Your task to perform on an android device: turn pop-ups on in chrome Image 0: 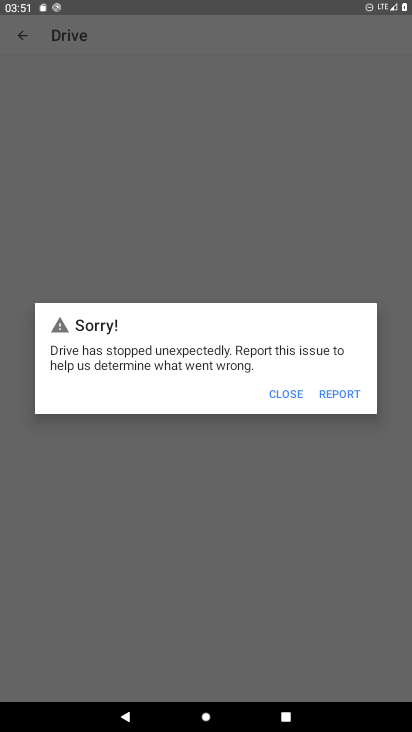
Step 0: press home button
Your task to perform on an android device: turn pop-ups on in chrome Image 1: 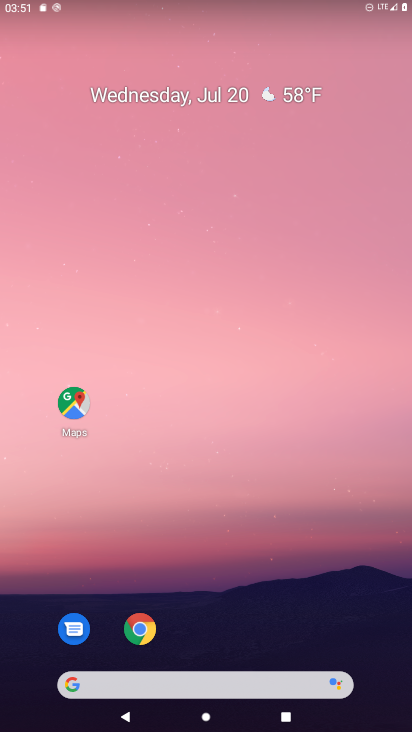
Step 1: drag from (294, 591) to (291, 118)
Your task to perform on an android device: turn pop-ups on in chrome Image 2: 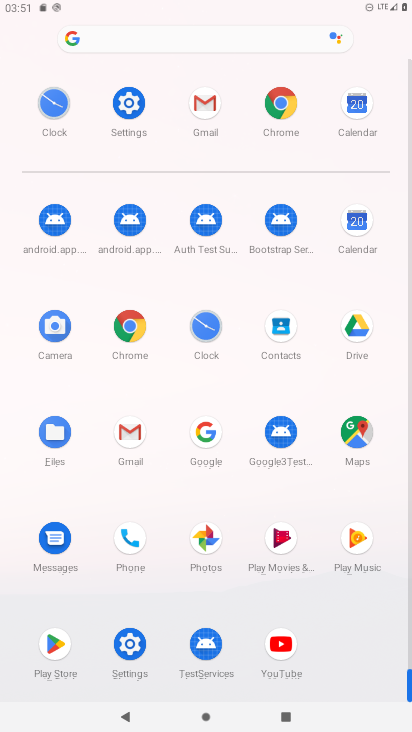
Step 2: click (122, 322)
Your task to perform on an android device: turn pop-ups on in chrome Image 3: 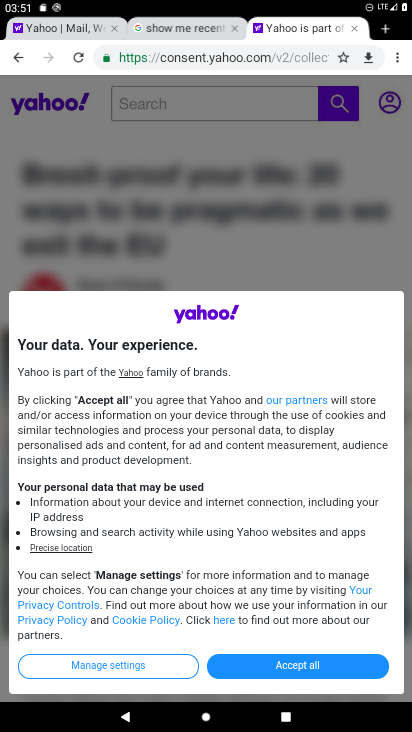
Step 3: click (403, 57)
Your task to perform on an android device: turn pop-ups on in chrome Image 4: 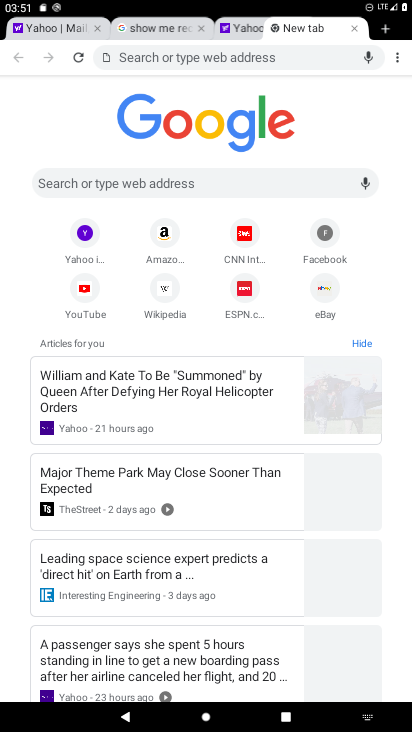
Step 4: drag from (403, 57) to (289, 253)
Your task to perform on an android device: turn pop-ups on in chrome Image 5: 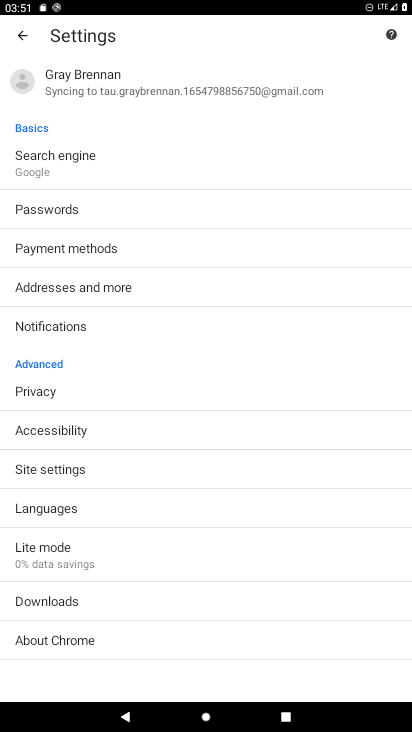
Step 5: click (49, 473)
Your task to perform on an android device: turn pop-ups on in chrome Image 6: 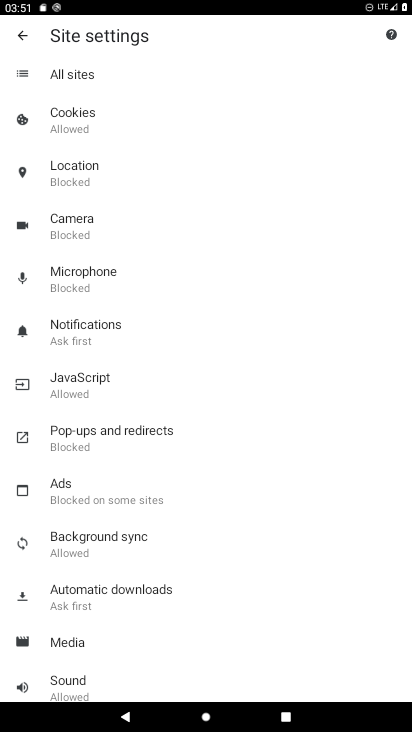
Step 6: click (85, 420)
Your task to perform on an android device: turn pop-ups on in chrome Image 7: 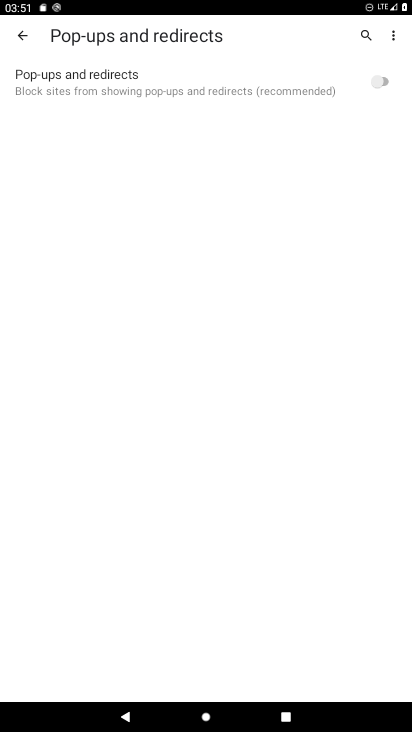
Step 7: click (212, 97)
Your task to perform on an android device: turn pop-ups on in chrome Image 8: 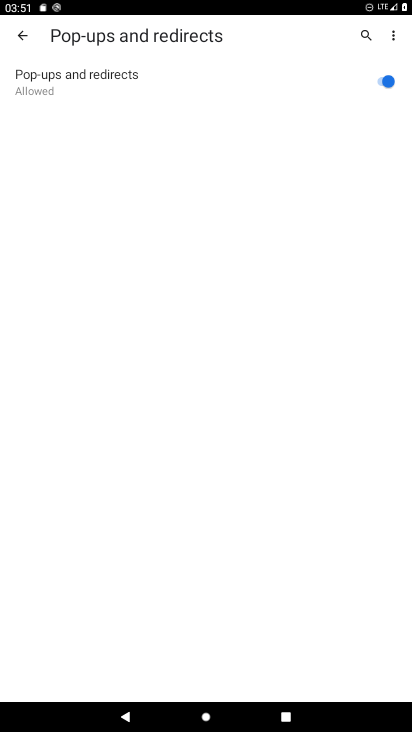
Step 8: task complete